Your task to perform on an android device: turn off translation in the chrome app Image 0: 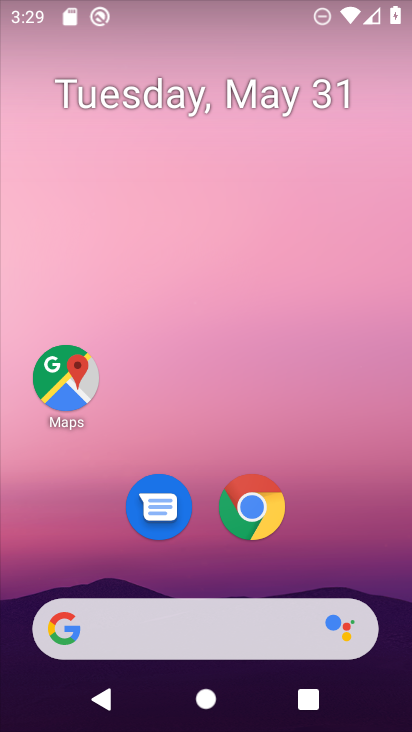
Step 0: task complete